Your task to perform on an android device: check google app version Image 0: 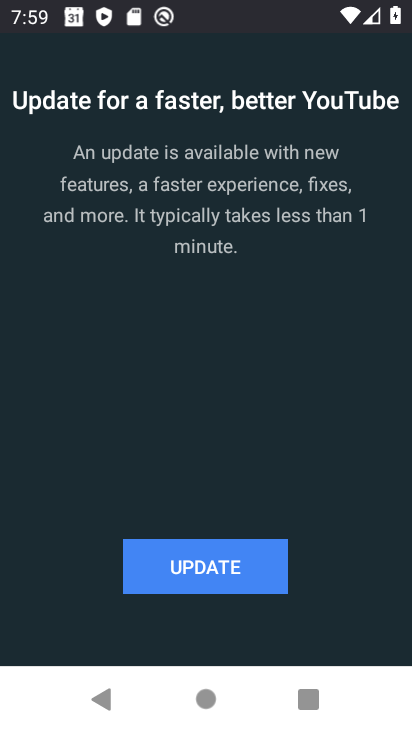
Step 0: press home button
Your task to perform on an android device: check google app version Image 1: 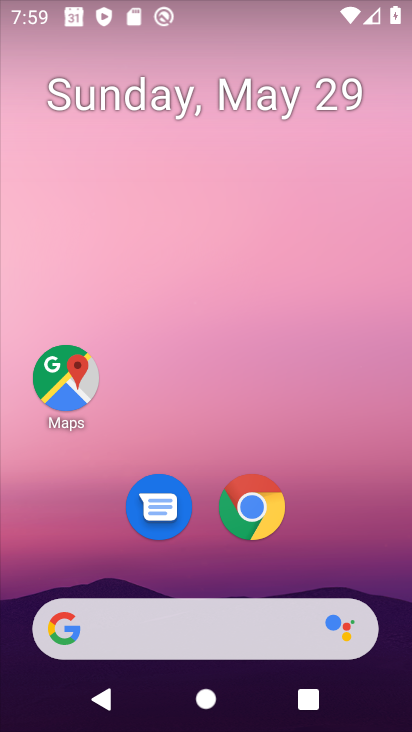
Step 1: drag from (293, 494) to (258, 91)
Your task to perform on an android device: check google app version Image 2: 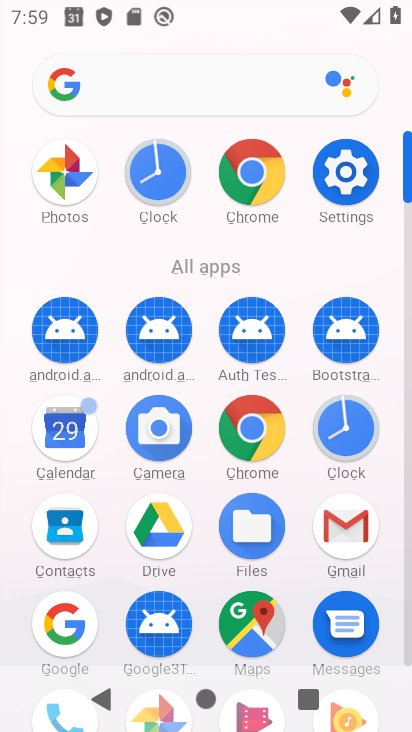
Step 2: click (348, 181)
Your task to perform on an android device: check google app version Image 3: 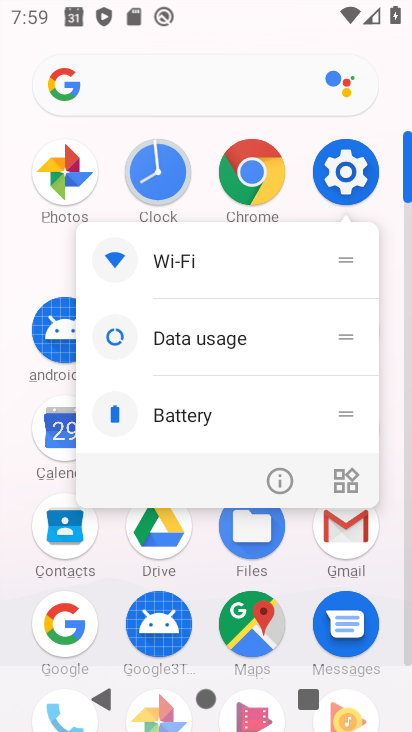
Step 3: click (301, 160)
Your task to perform on an android device: check google app version Image 4: 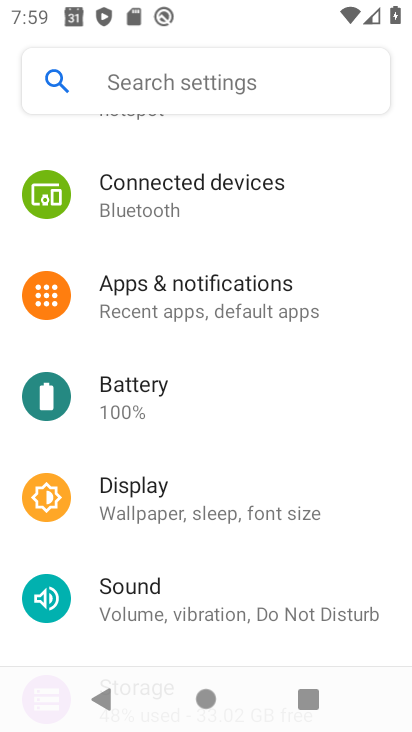
Step 4: press back button
Your task to perform on an android device: check google app version Image 5: 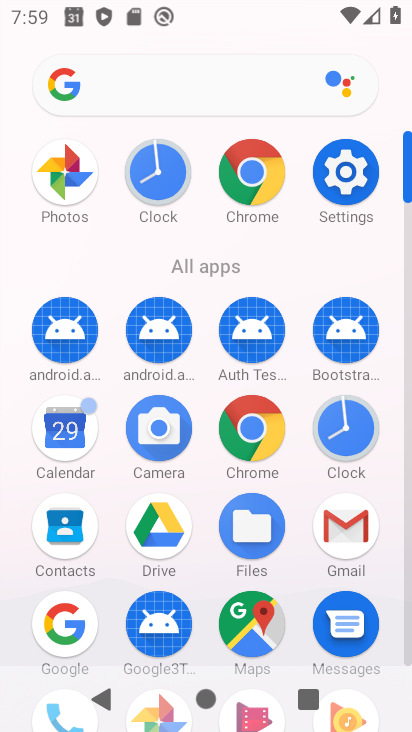
Step 5: click (71, 628)
Your task to perform on an android device: check google app version Image 6: 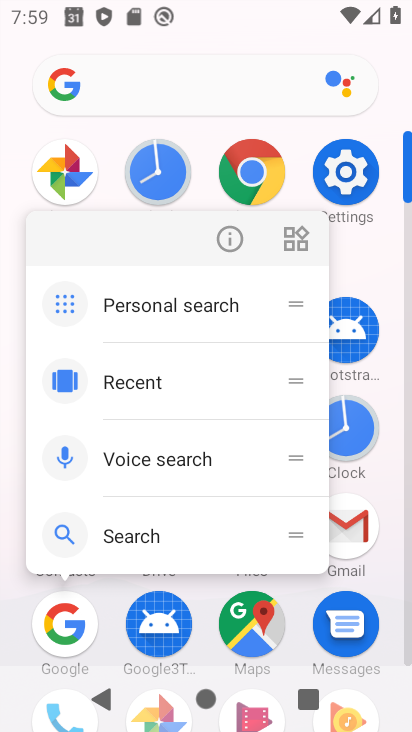
Step 6: click (234, 247)
Your task to perform on an android device: check google app version Image 7: 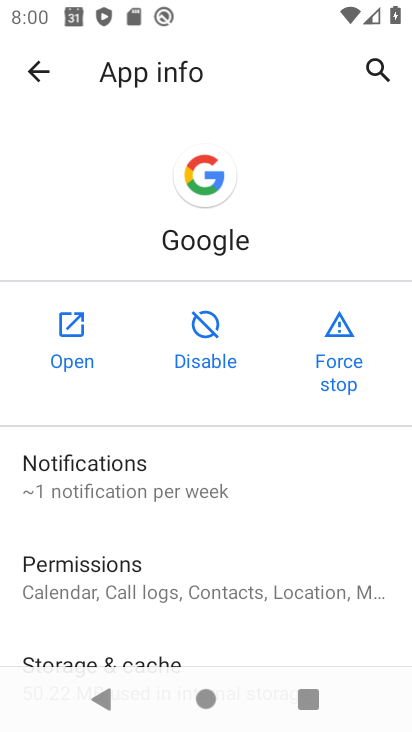
Step 7: drag from (253, 504) to (306, 29)
Your task to perform on an android device: check google app version Image 8: 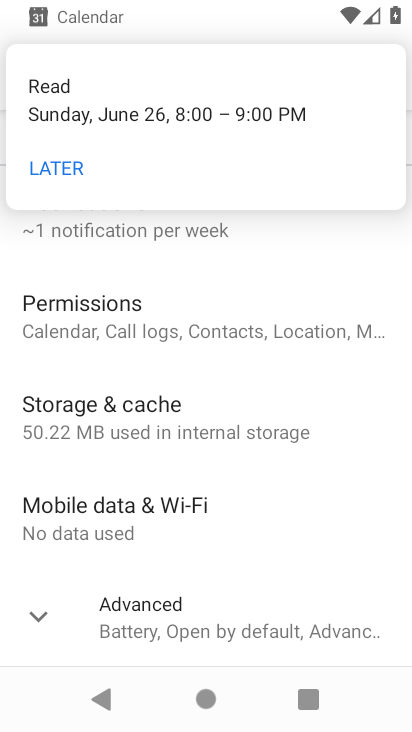
Step 8: click (178, 611)
Your task to perform on an android device: check google app version Image 9: 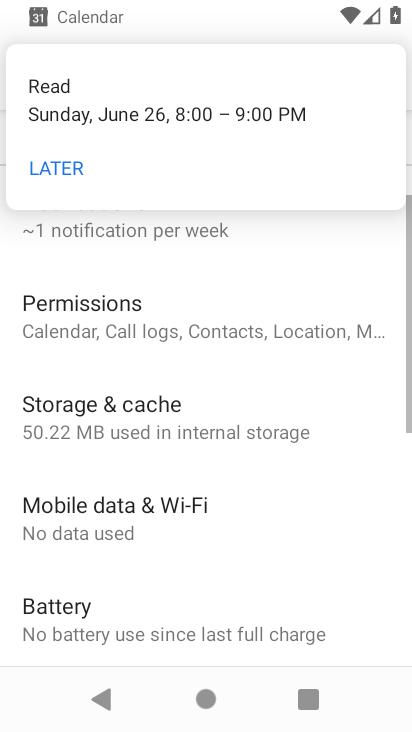
Step 9: task complete